Your task to perform on an android device: read, delete, or share a saved page in the chrome app Image 0: 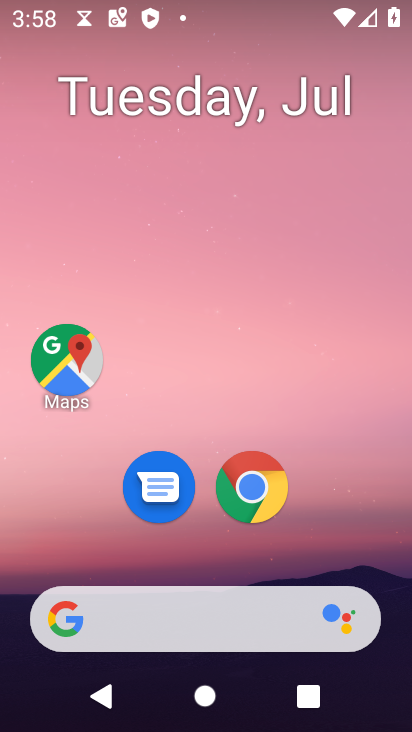
Step 0: click (255, 485)
Your task to perform on an android device: read, delete, or share a saved page in the chrome app Image 1: 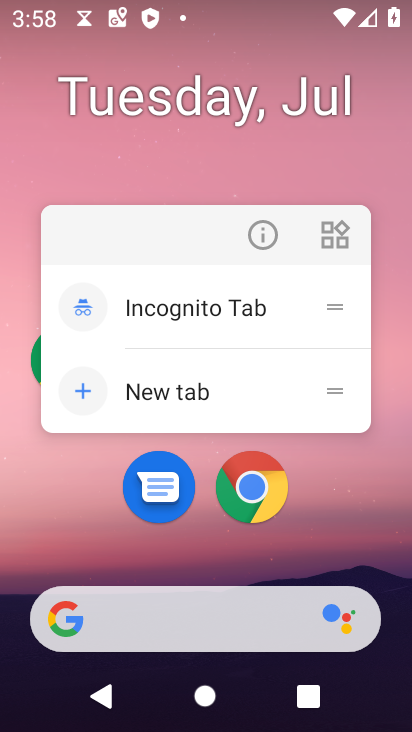
Step 1: click (265, 487)
Your task to perform on an android device: read, delete, or share a saved page in the chrome app Image 2: 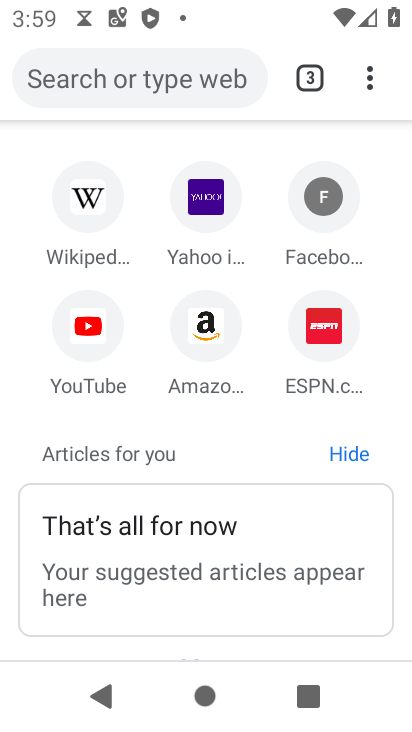
Step 2: drag from (373, 77) to (102, 513)
Your task to perform on an android device: read, delete, or share a saved page in the chrome app Image 3: 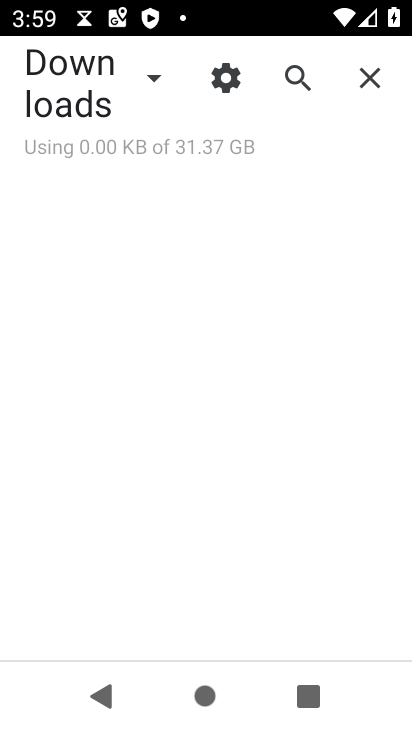
Step 3: click (152, 73)
Your task to perform on an android device: read, delete, or share a saved page in the chrome app Image 4: 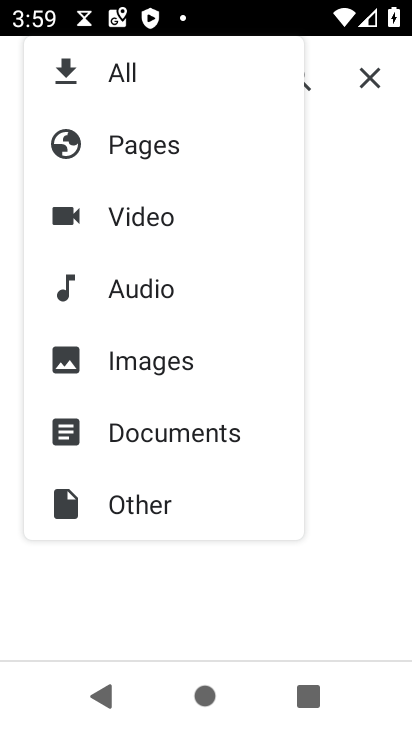
Step 4: click (178, 143)
Your task to perform on an android device: read, delete, or share a saved page in the chrome app Image 5: 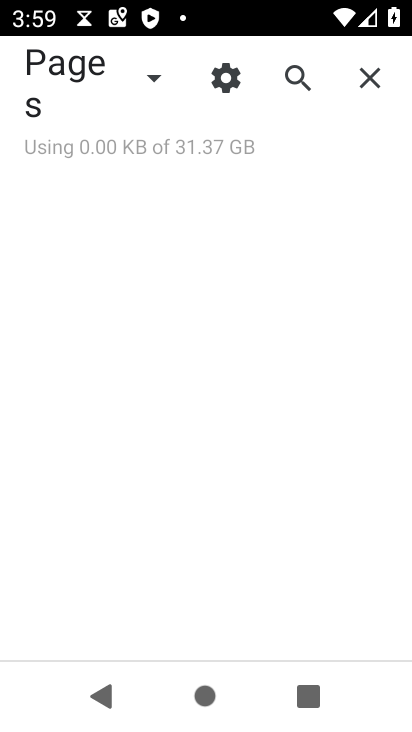
Step 5: task complete